Your task to perform on an android device: What's the weather today? Image 0: 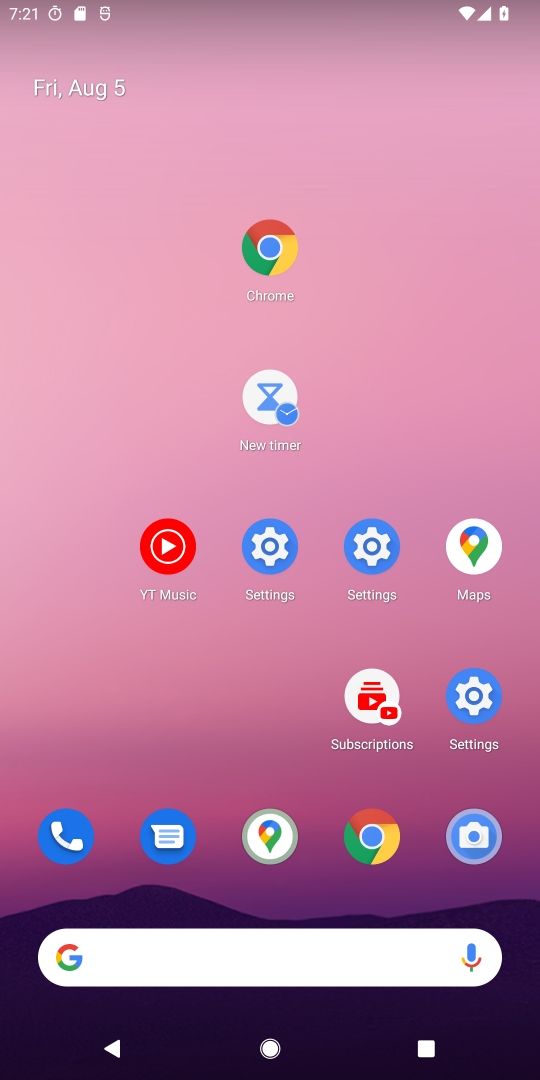
Step 0: drag from (290, 958) to (190, 337)
Your task to perform on an android device: What's the weather today? Image 1: 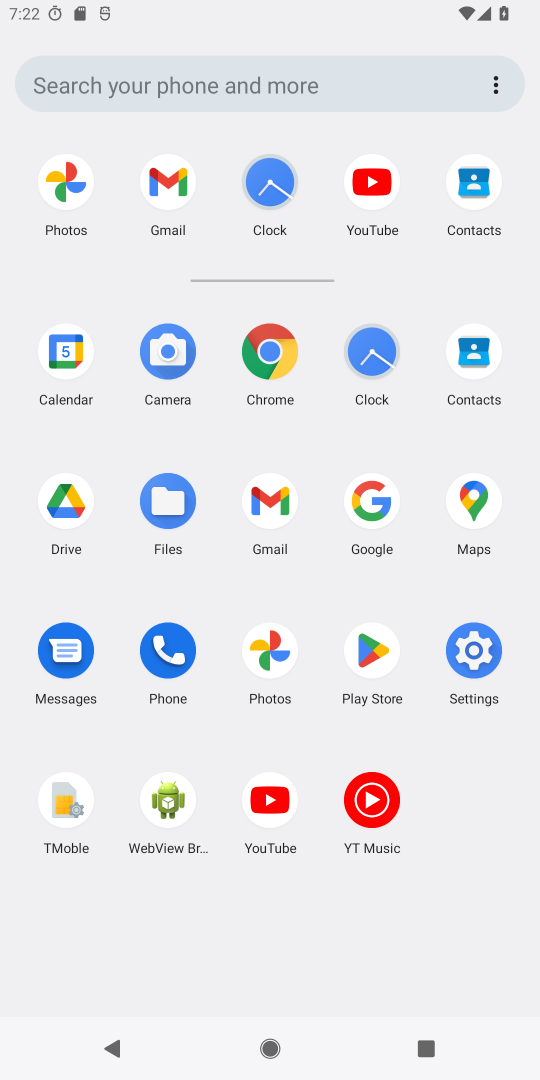
Step 1: click (290, 348)
Your task to perform on an android device: What's the weather today? Image 2: 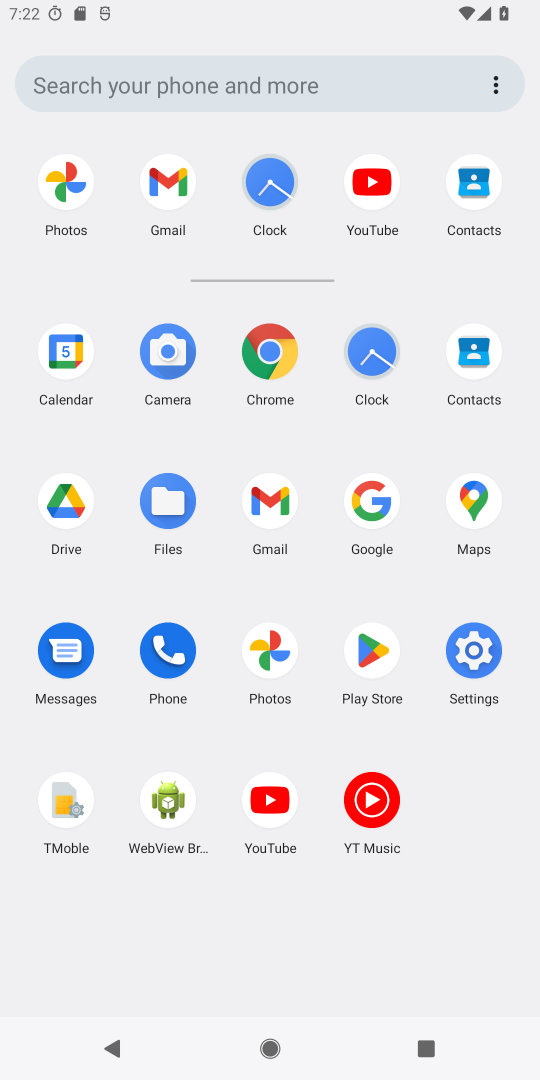
Step 2: click (261, 347)
Your task to perform on an android device: What's the weather today? Image 3: 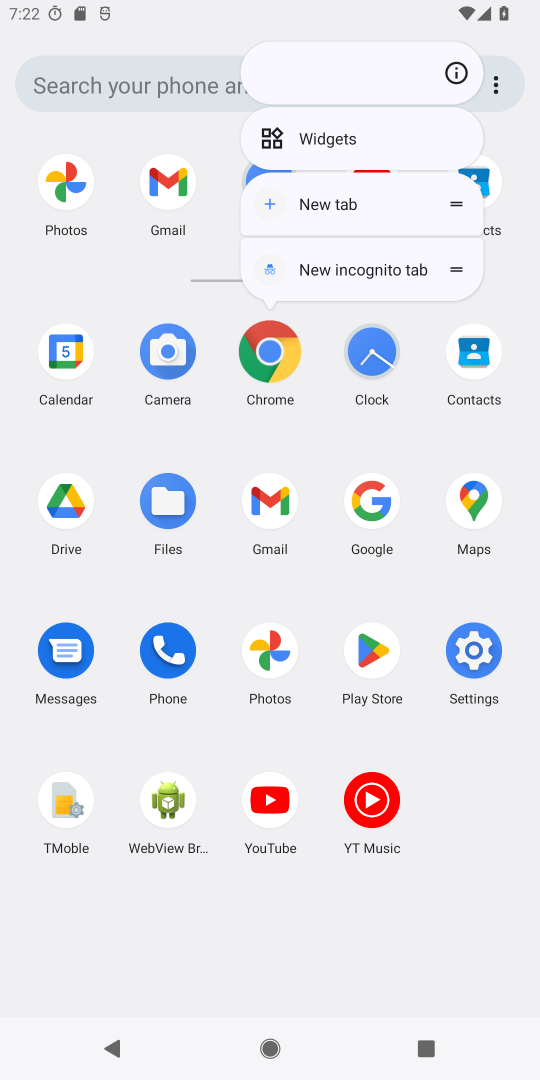
Step 3: click (264, 351)
Your task to perform on an android device: What's the weather today? Image 4: 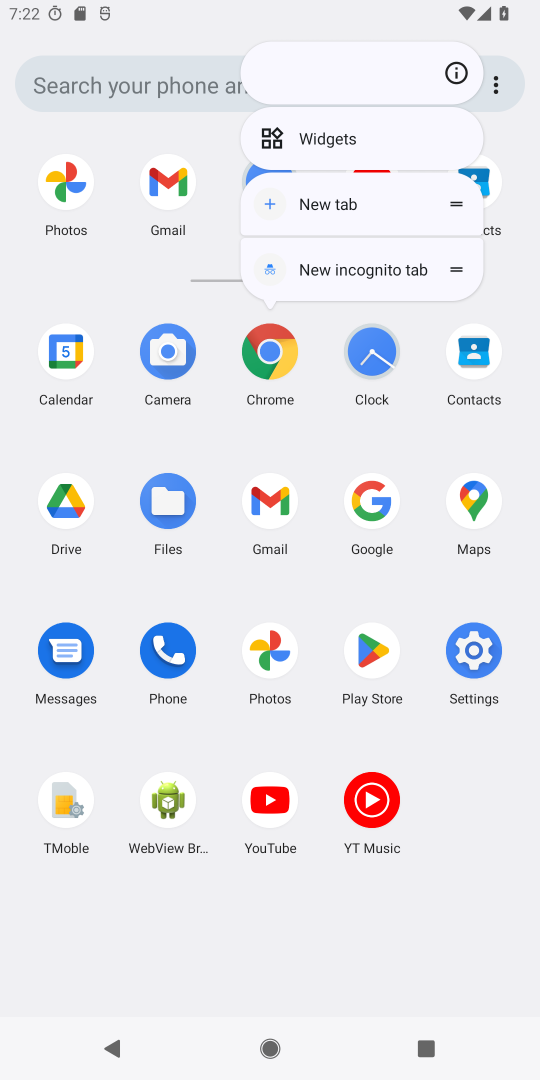
Step 4: click (264, 358)
Your task to perform on an android device: What's the weather today? Image 5: 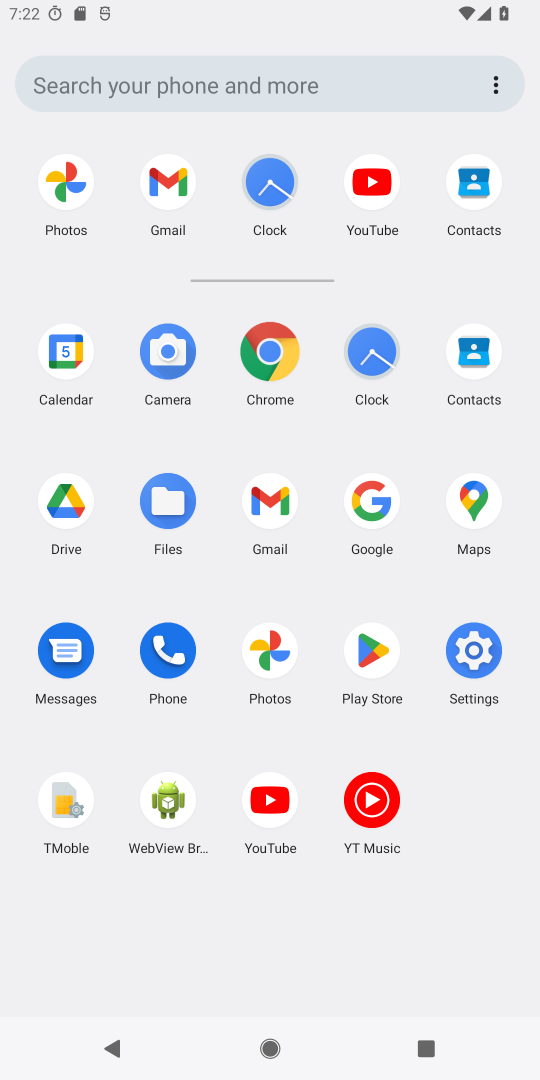
Step 5: click (265, 361)
Your task to perform on an android device: What's the weather today? Image 6: 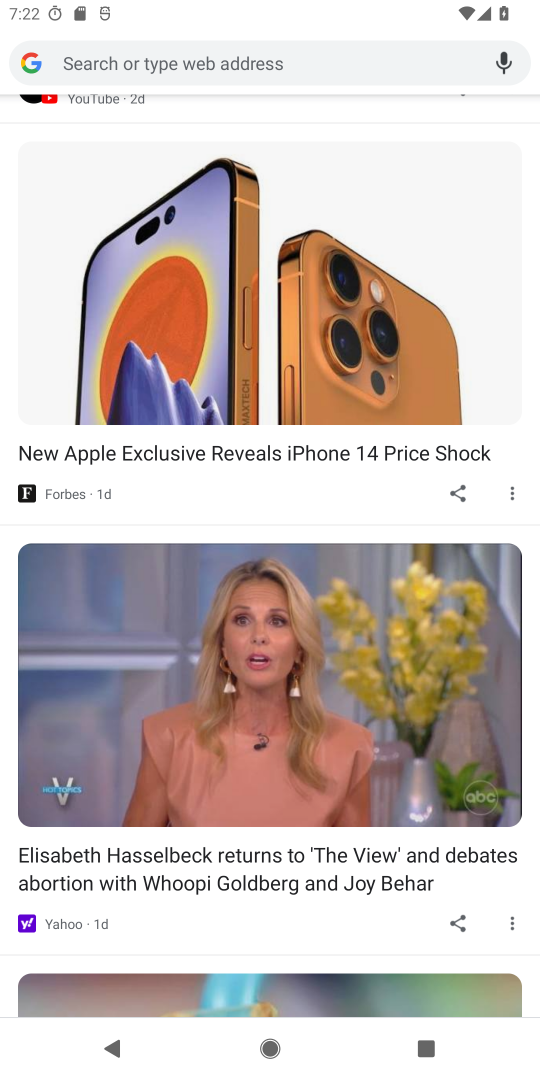
Step 6: click (107, 52)
Your task to perform on an android device: What's the weather today? Image 7: 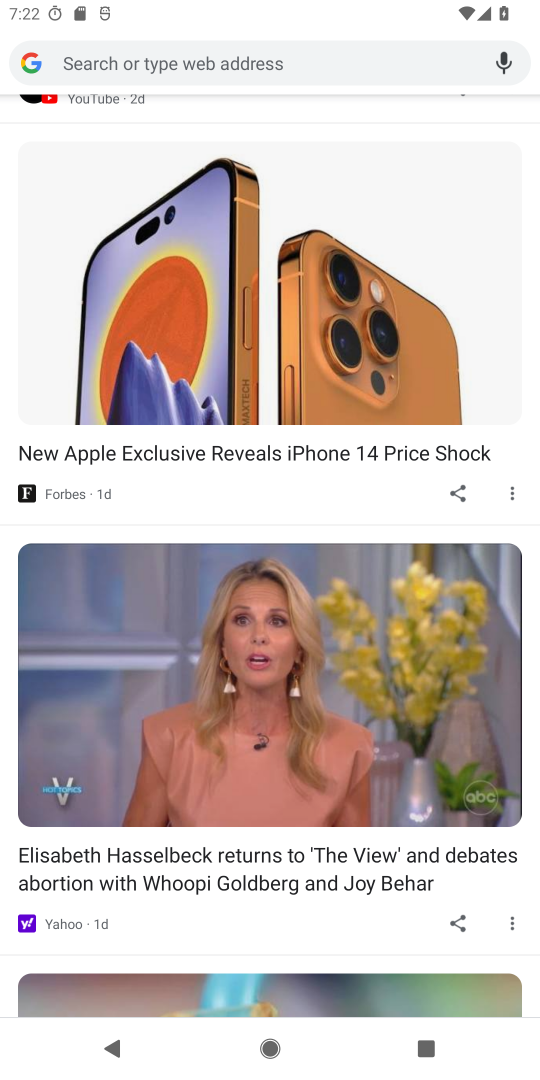
Step 7: click (107, 56)
Your task to perform on an android device: What's the weather today? Image 8: 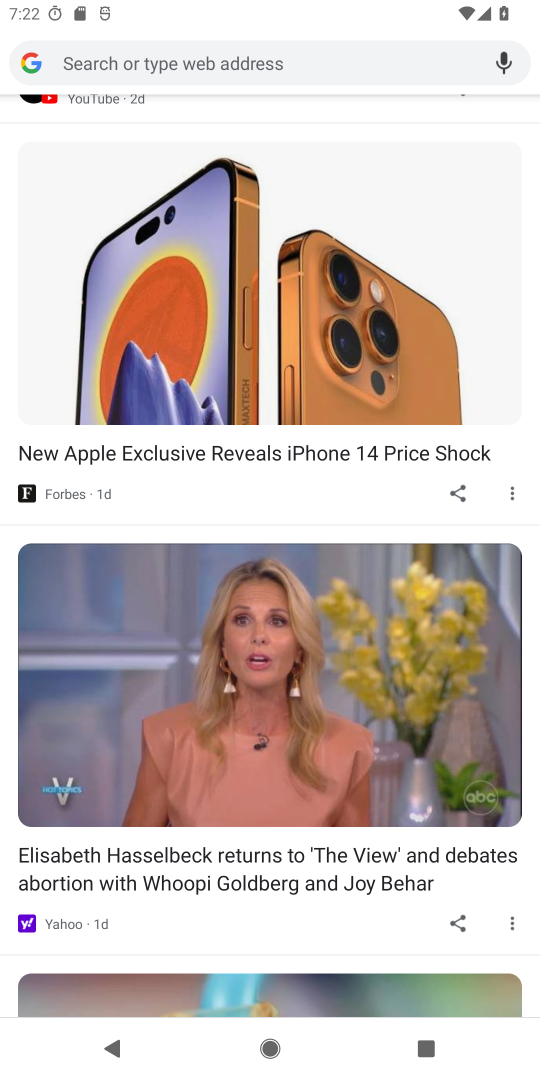
Step 8: type "weather today?"
Your task to perform on an android device: What's the weather today? Image 9: 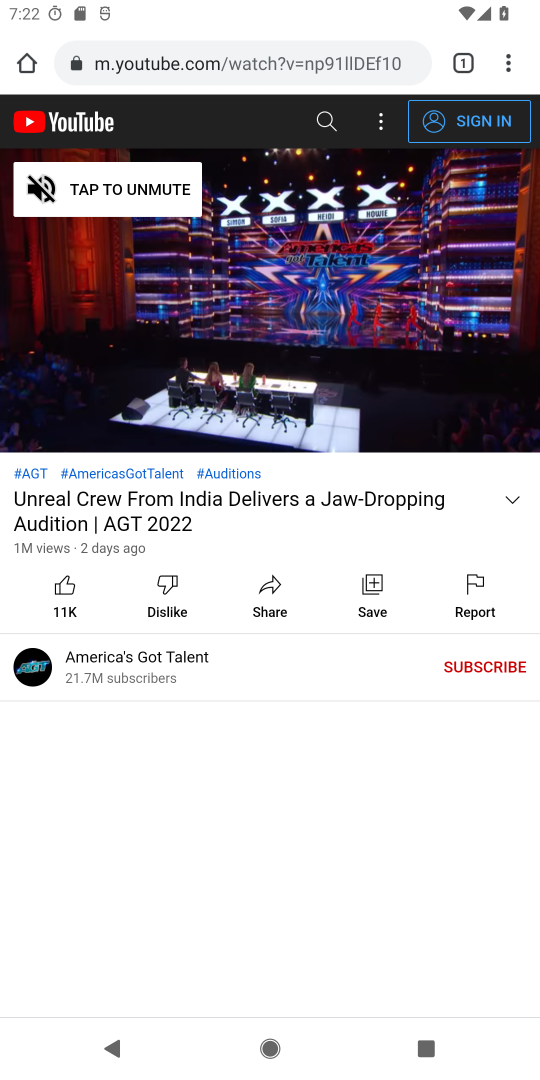
Step 9: press back button
Your task to perform on an android device: What's the weather today? Image 10: 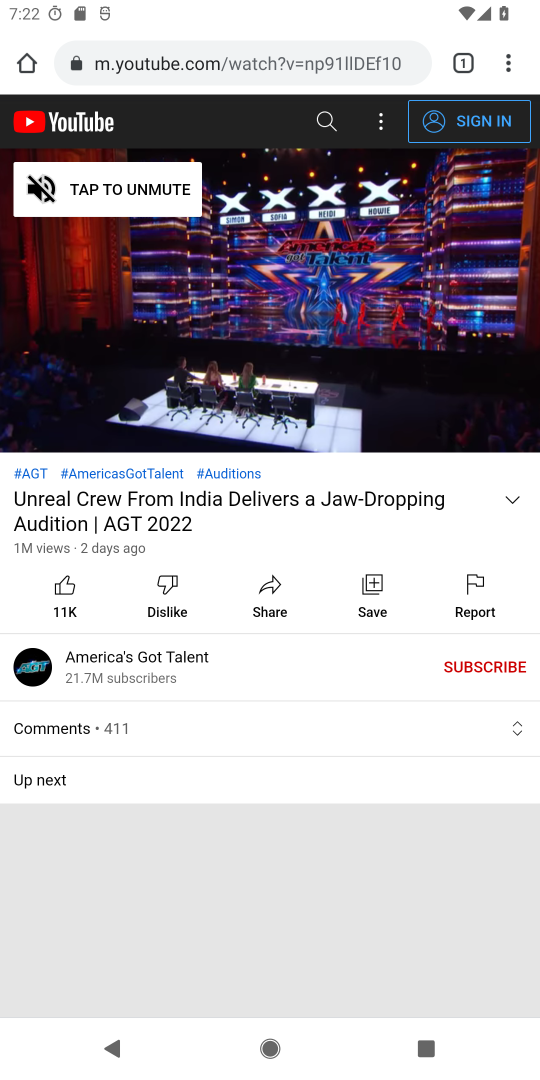
Step 10: press back button
Your task to perform on an android device: What's the weather today? Image 11: 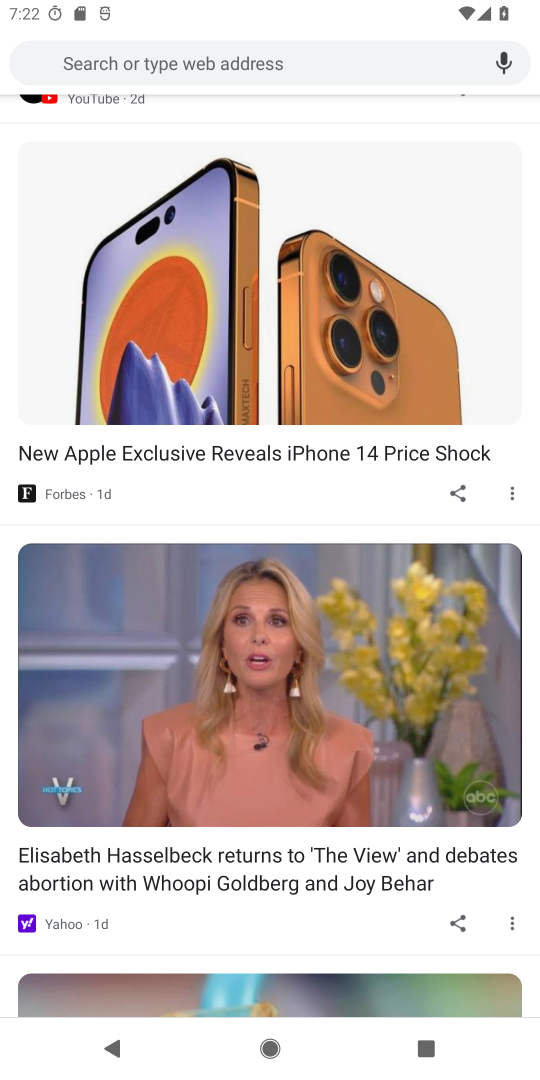
Step 11: press back button
Your task to perform on an android device: What's the weather today? Image 12: 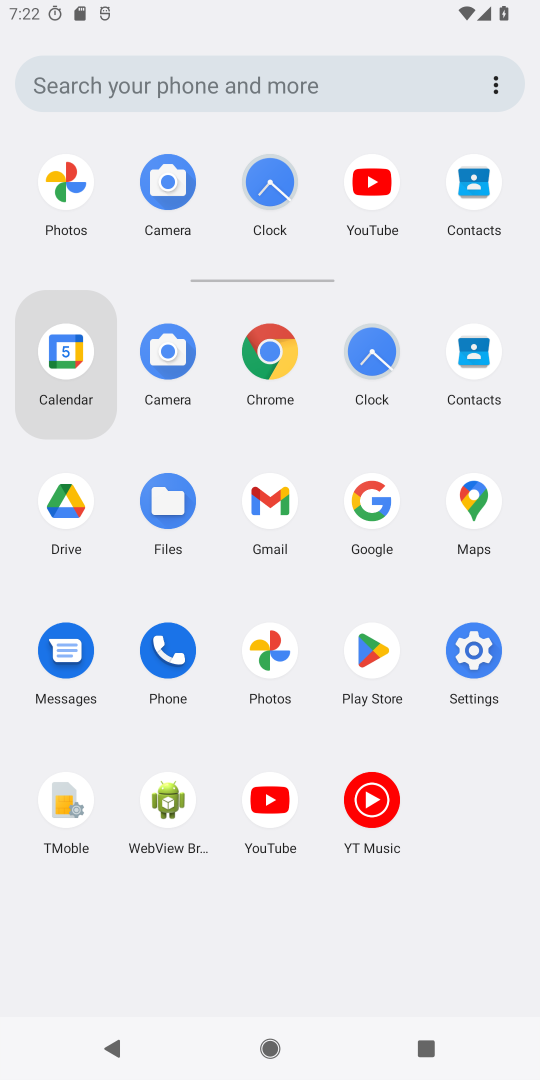
Step 12: press back button
Your task to perform on an android device: What's the weather today? Image 13: 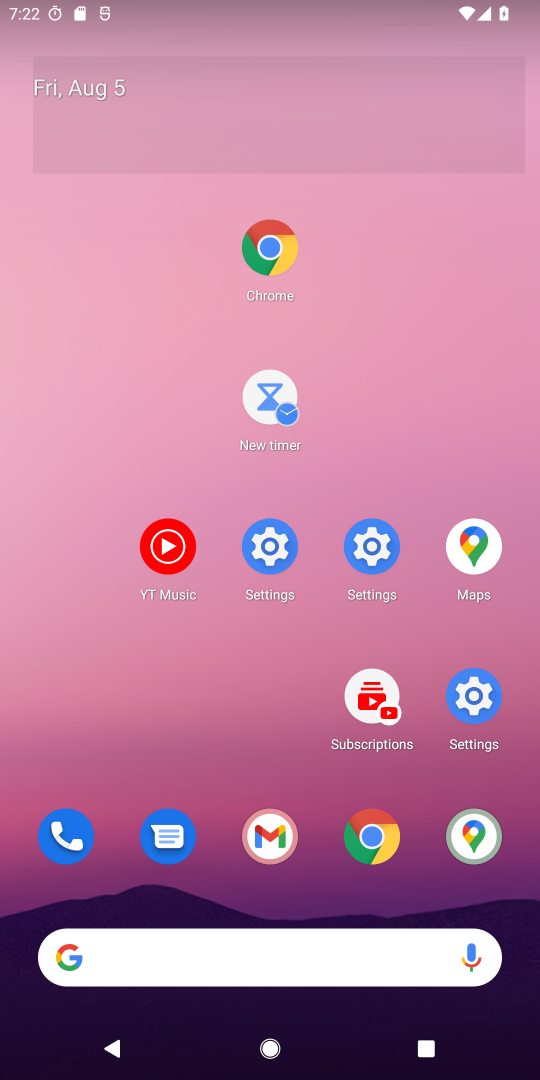
Step 13: drag from (309, 801) to (199, 408)
Your task to perform on an android device: What's the weather today? Image 14: 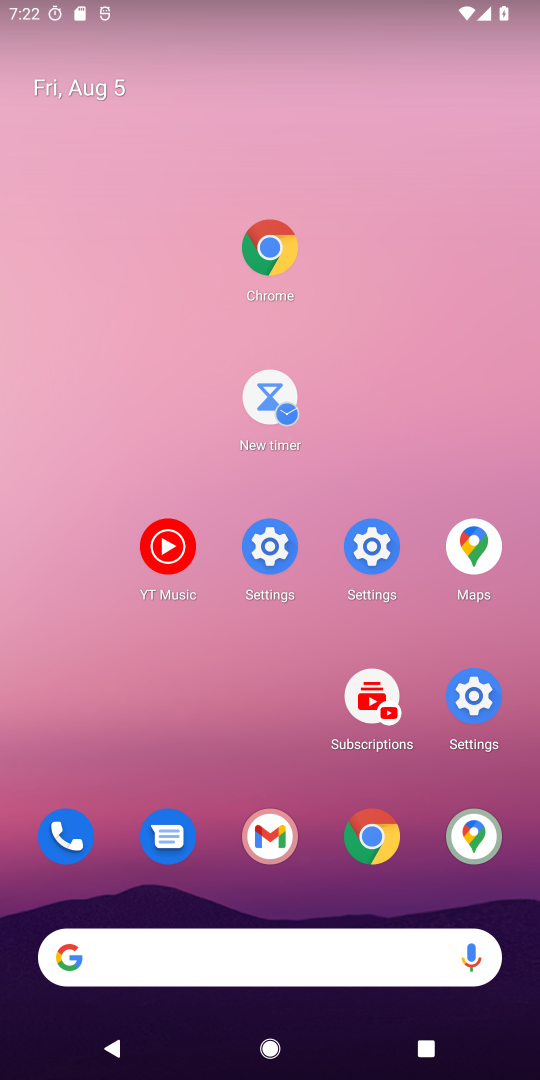
Step 14: click (252, 389)
Your task to perform on an android device: What's the weather today? Image 15: 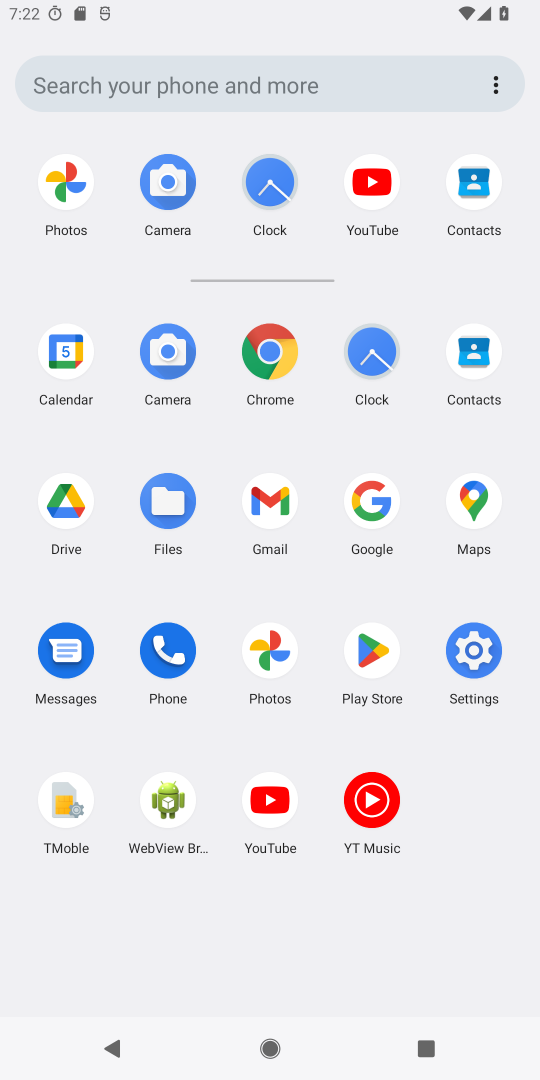
Step 15: click (252, 360)
Your task to perform on an android device: What's the weather today? Image 16: 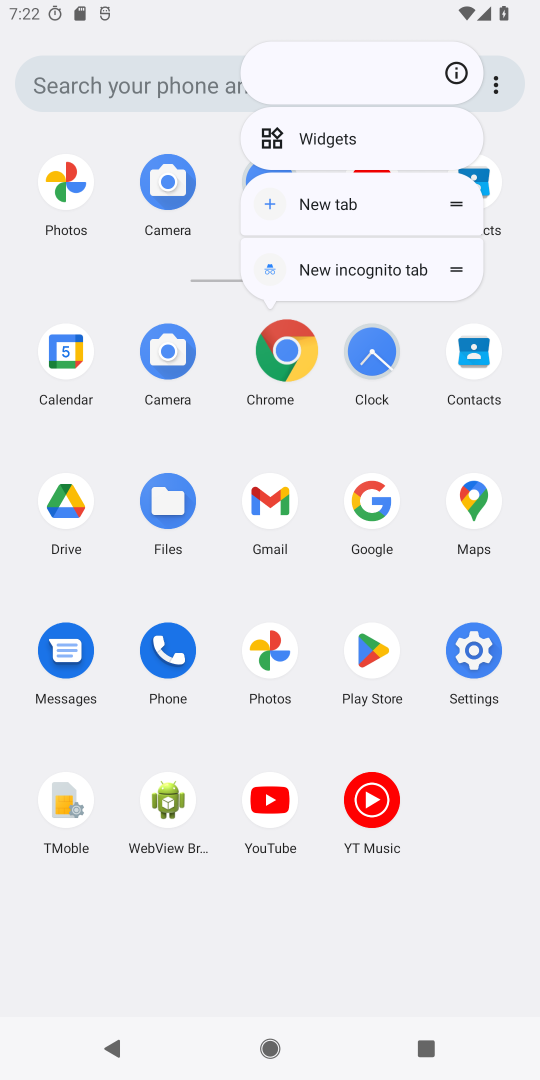
Step 16: click (269, 359)
Your task to perform on an android device: What's the weather today? Image 17: 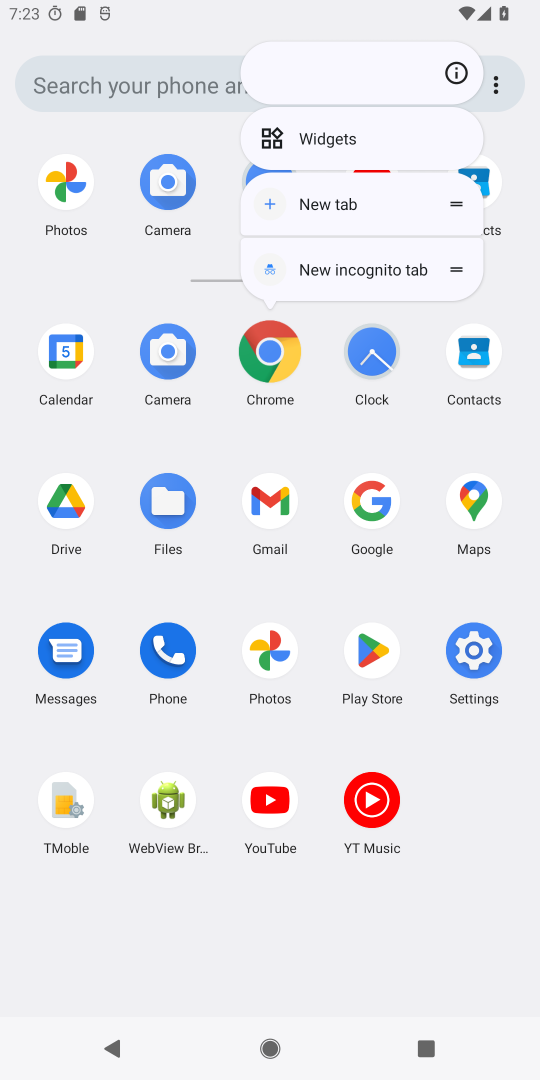
Step 17: click (270, 347)
Your task to perform on an android device: What's the weather today? Image 18: 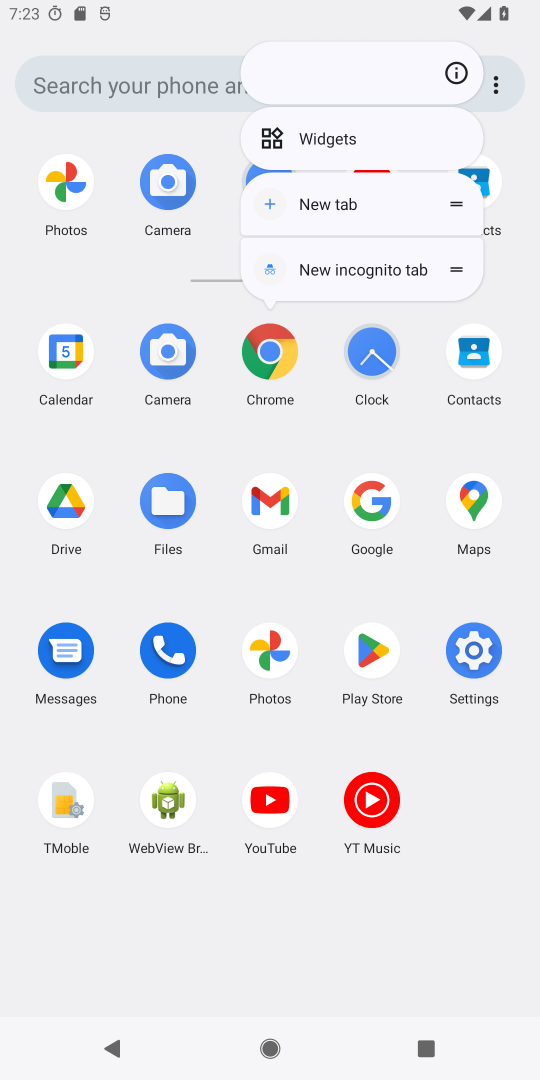
Step 18: click (359, 217)
Your task to perform on an android device: What's the weather today? Image 19: 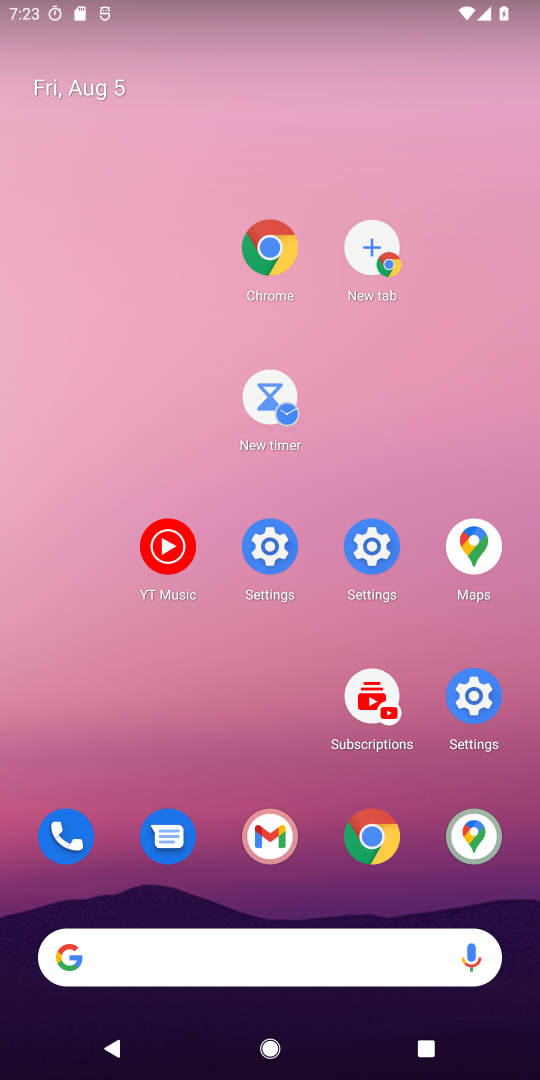
Step 19: drag from (280, 1015) to (205, 360)
Your task to perform on an android device: What's the weather today? Image 20: 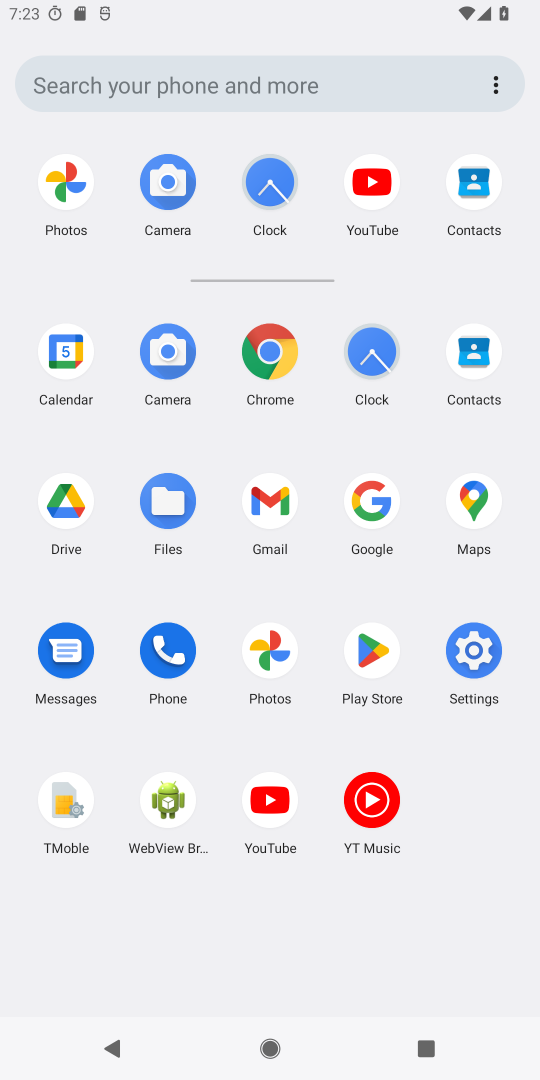
Step 20: click (158, 324)
Your task to perform on an android device: What's the weather today? Image 21: 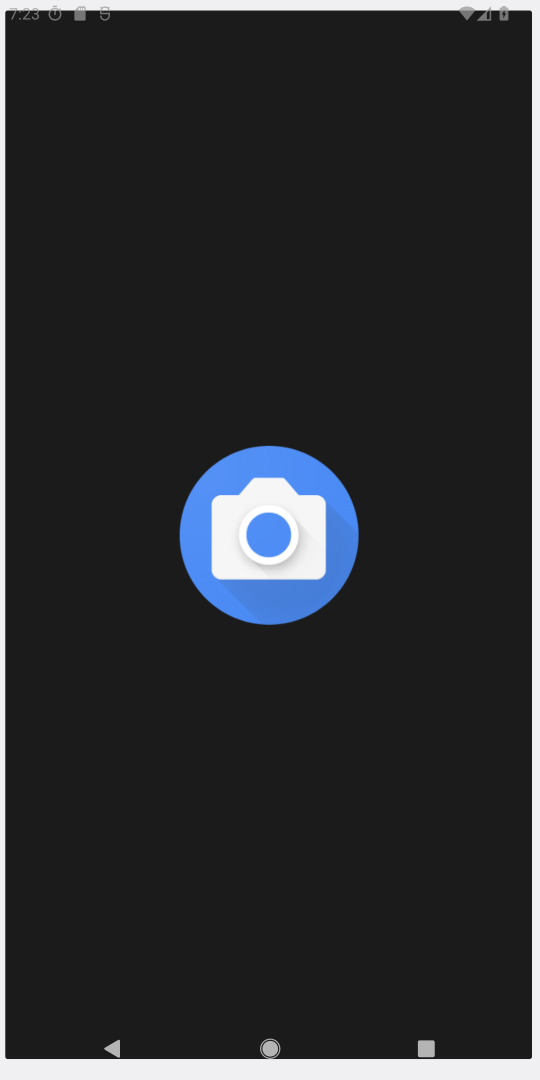
Step 21: drag from (230, 483) to (203, 4)
Your task to perform on an android device: What's the weather today? Image 22: 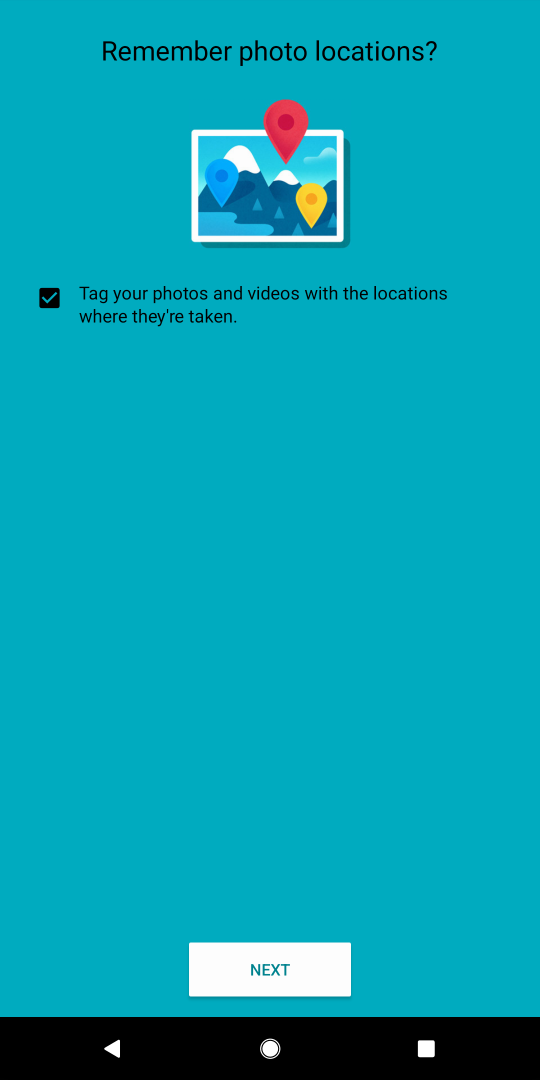
Step 22: drag from (324, 467) to (267, 69)
Your task to perform on an android device: What's the weather today? Image 23: 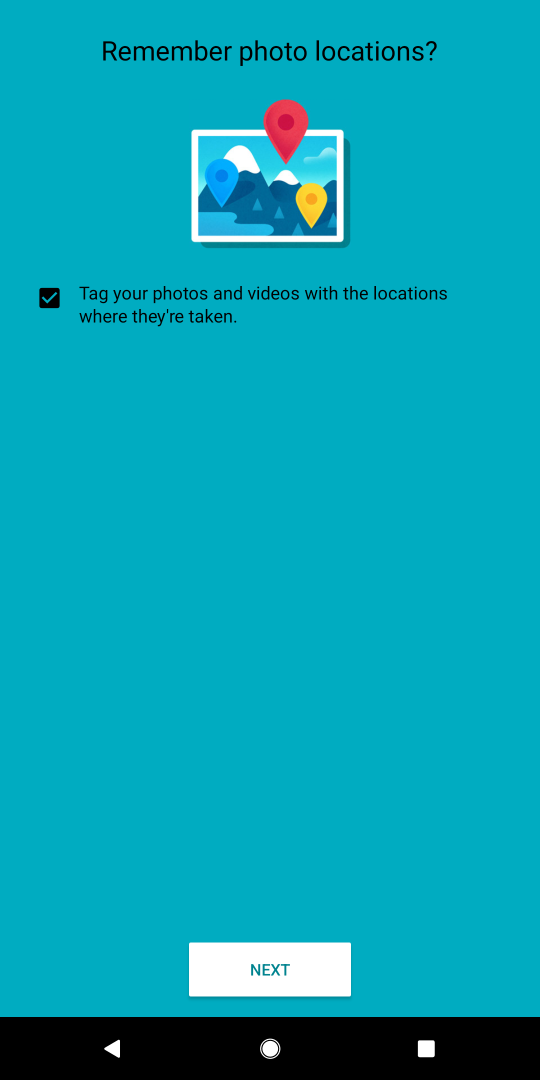
Step 23: drag from (336, 897) to (218, 185)
Your task to perform on an android device: What's the weather today? Image 24: 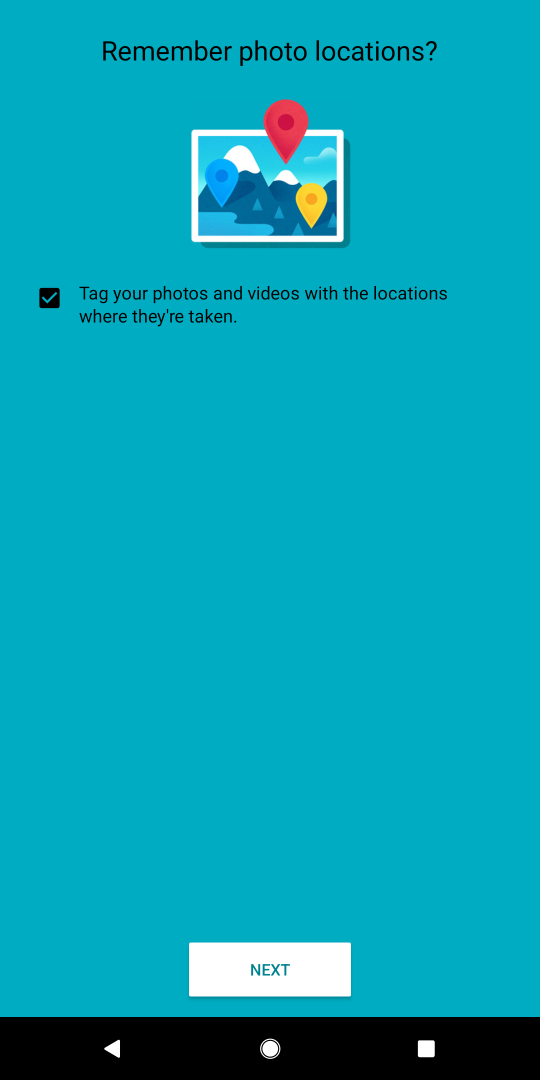
Step 24: press back button
Your task to perform on an android device: What's the weather today? Image 25: 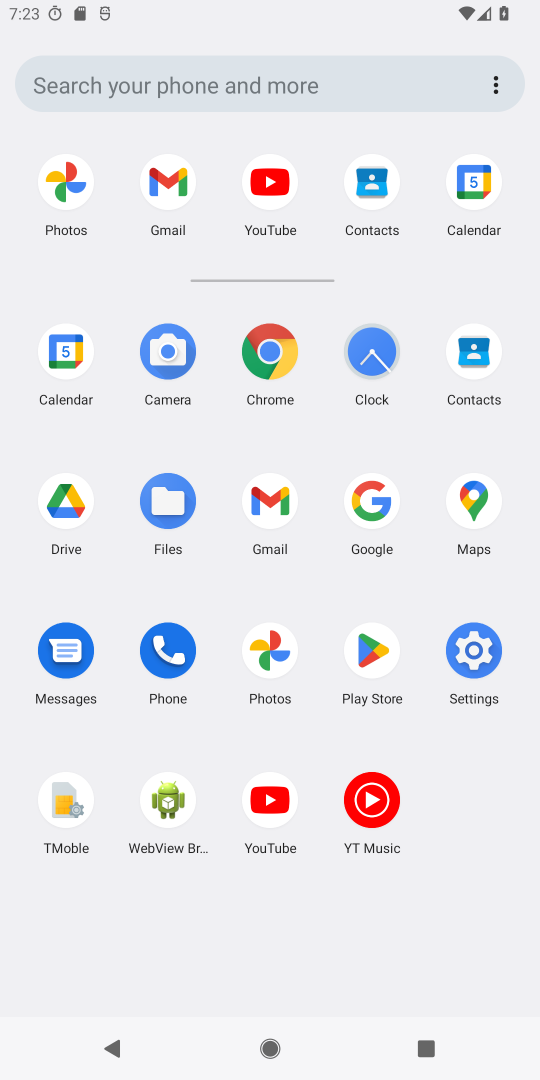
Step 25: drag from (277, 583) to (172, 213)
Your task to perform on an android device: What's the weather today? Image 26: 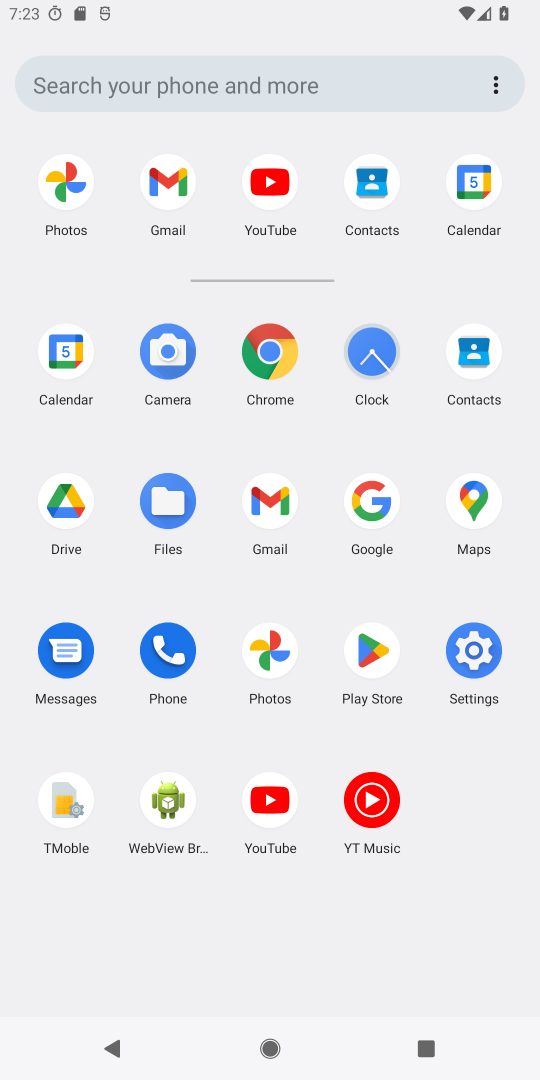
Step 26: drag from (252, 653) to (230, 499)
Your task to perform on an android device: What's the weather today? Image 27: 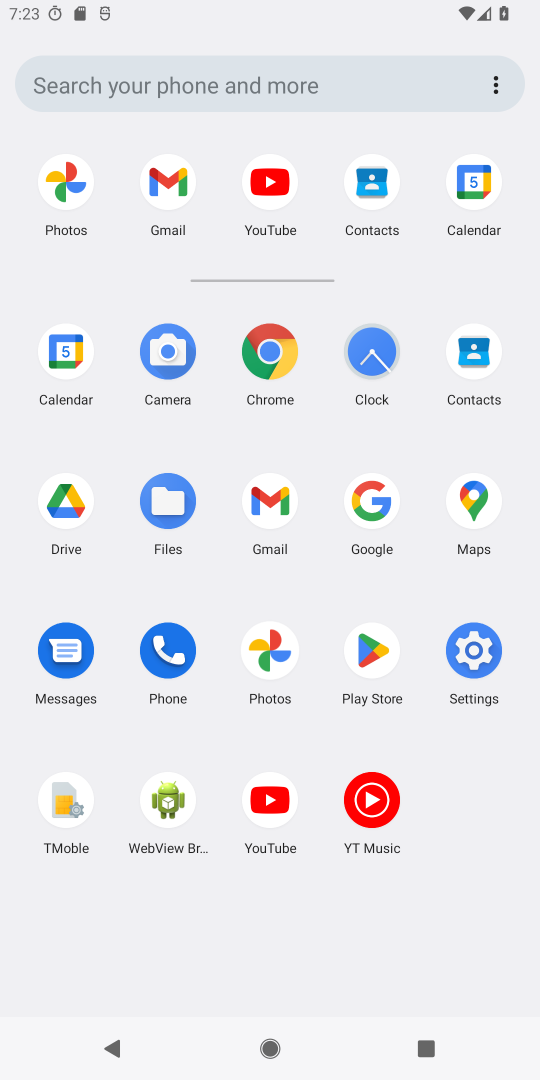
Step 27: drag from (282, 625) to (282, 246)
Your task to perform on an android device: What's the weather today? Image 28: 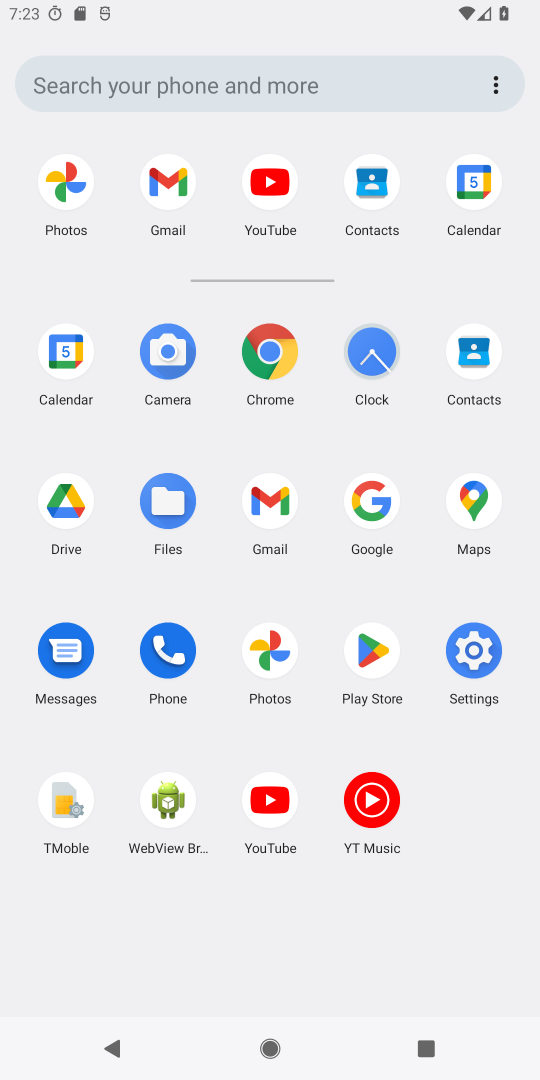
Step 28: click (265, 362)
Your task to perform on an android device: What's the weather today? Image 29: 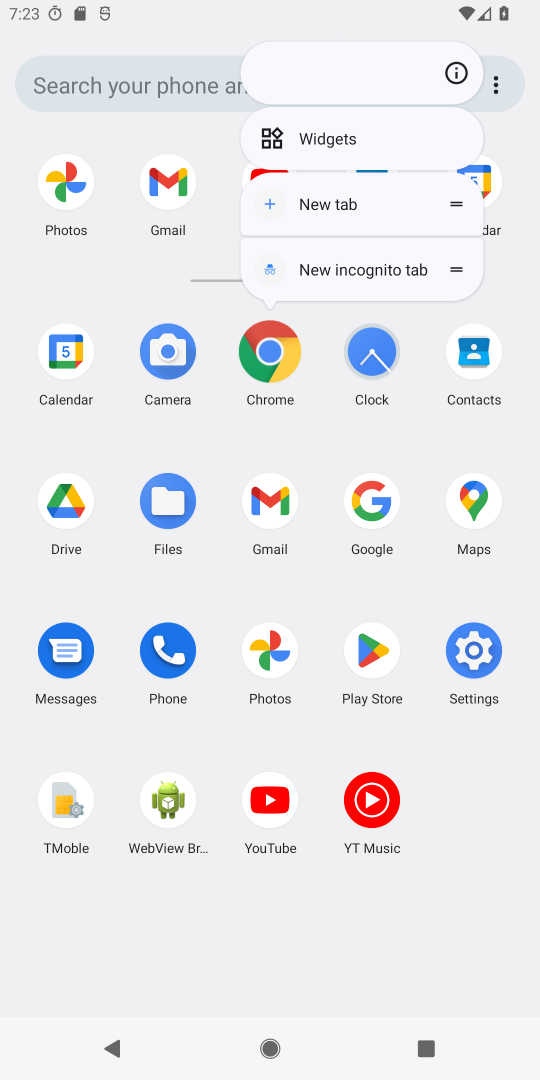
Step 29: click (265, 362)
Your task to perform on an android device: What's the weather today? Image 30: 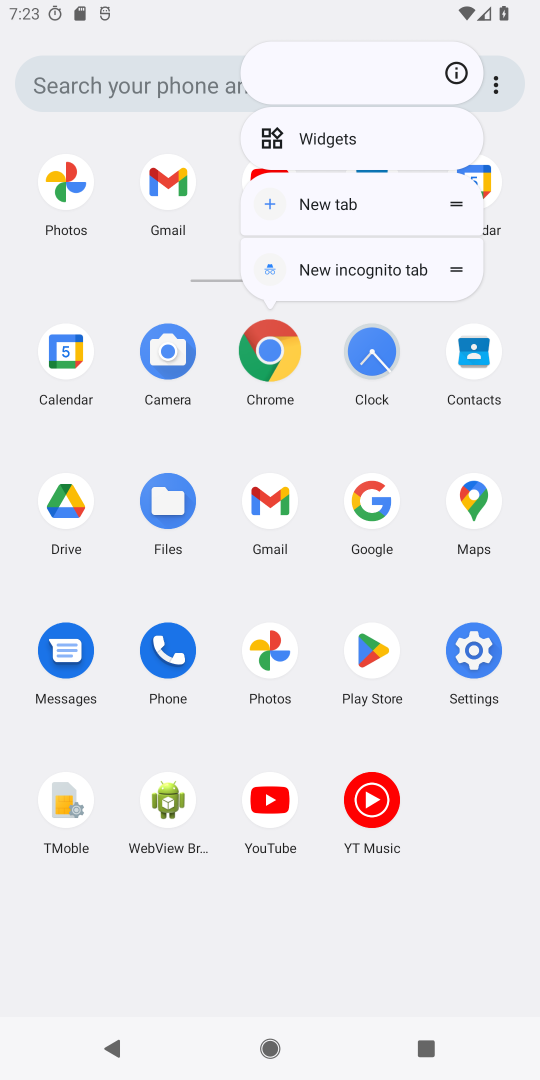
Step 30: click (265, 360)
Your task to perform on an android device: What's the weather today? Image 31: 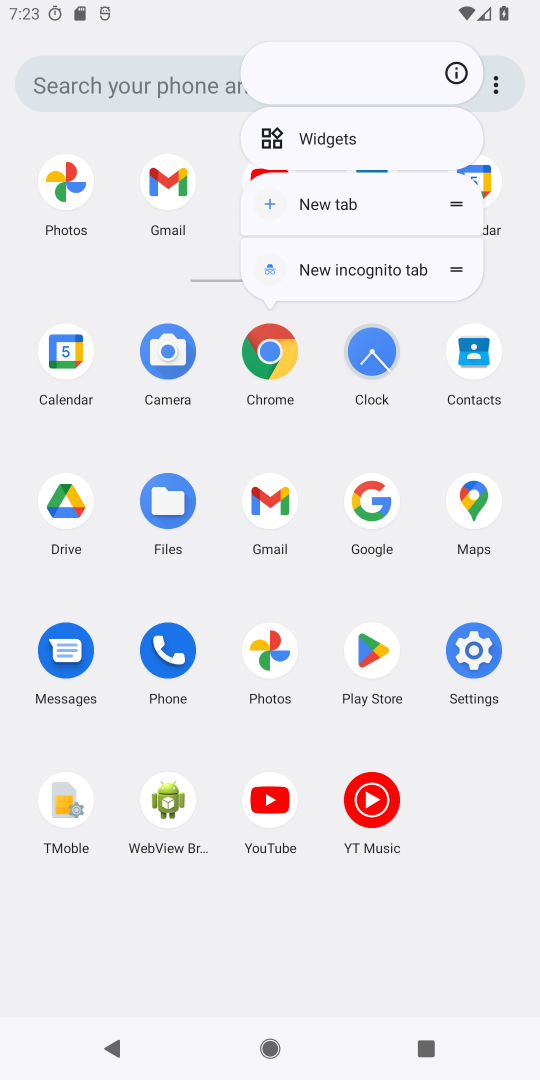
Step 31: click (265, 360)
Your task to perform on an android device: What's the weather today? Image 32: 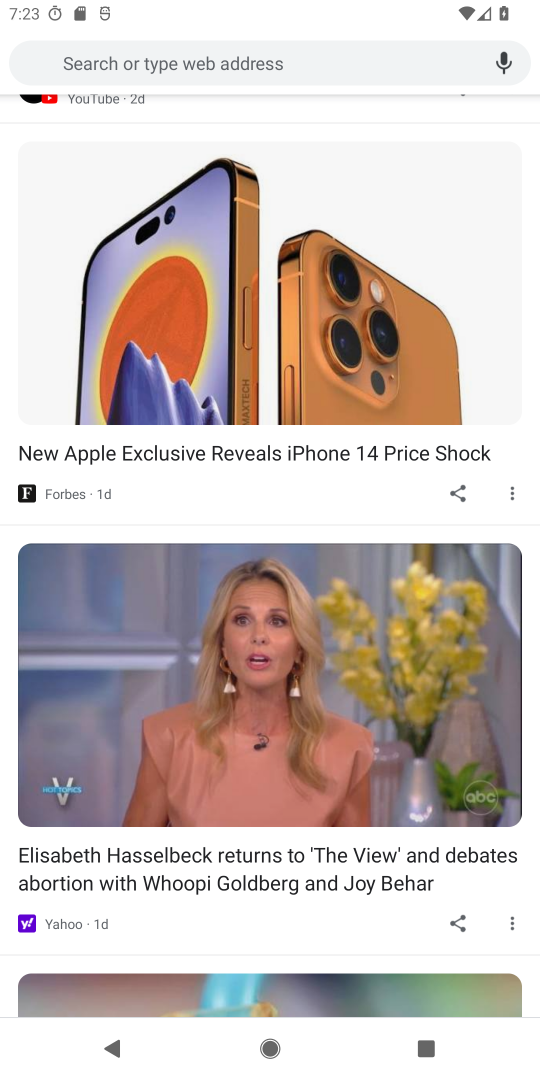
Step 32: click (115, 71)
Your task to perform on an android device: What's the weather today? Image 33: 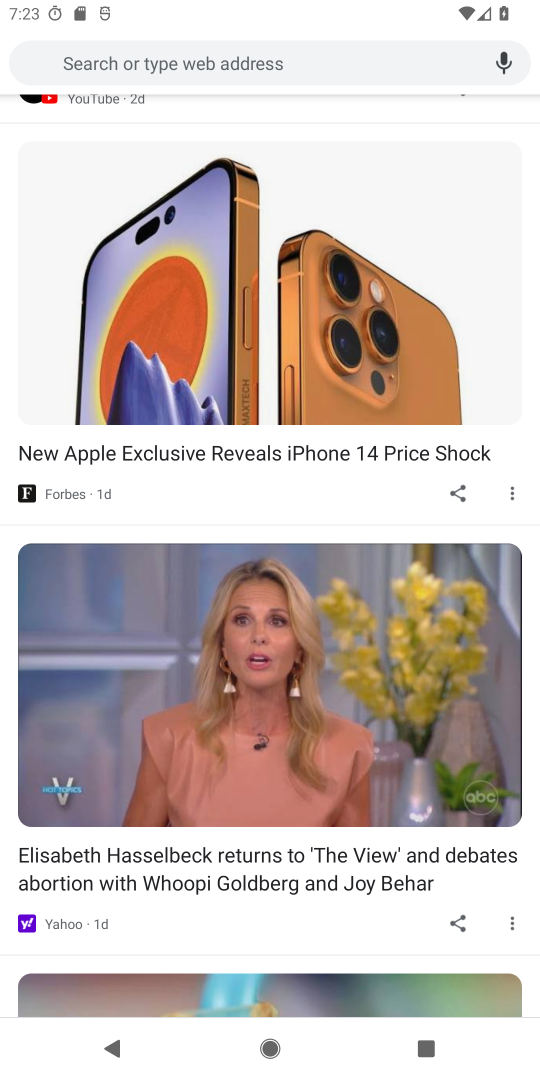
Step 33: click (115, 71)
Your task to perform on an android device: What's the weather today? Image 34: 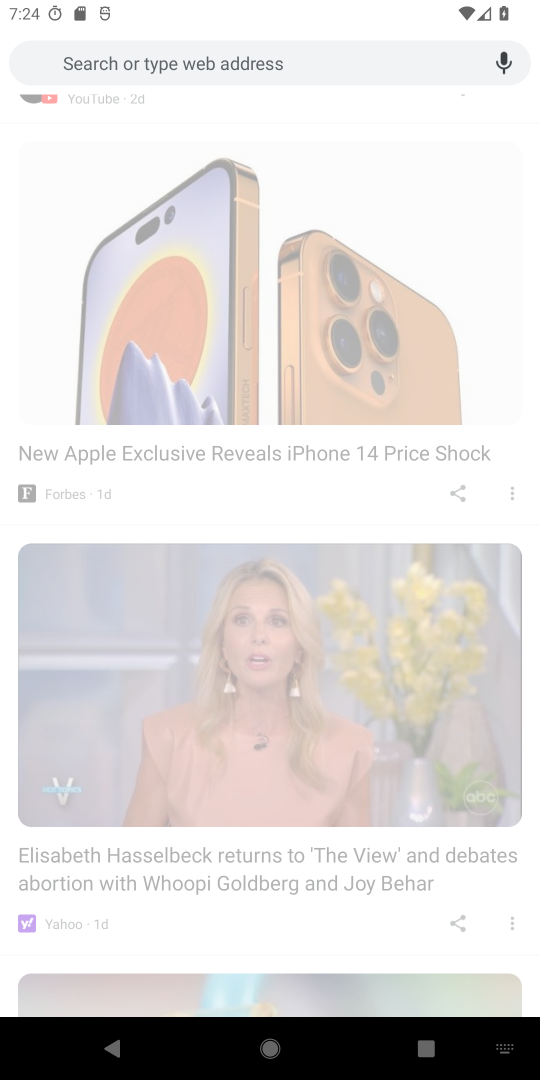
Step 34: click (115, 71)
Your task to perform on an android device: What's the weather today? Image 35: 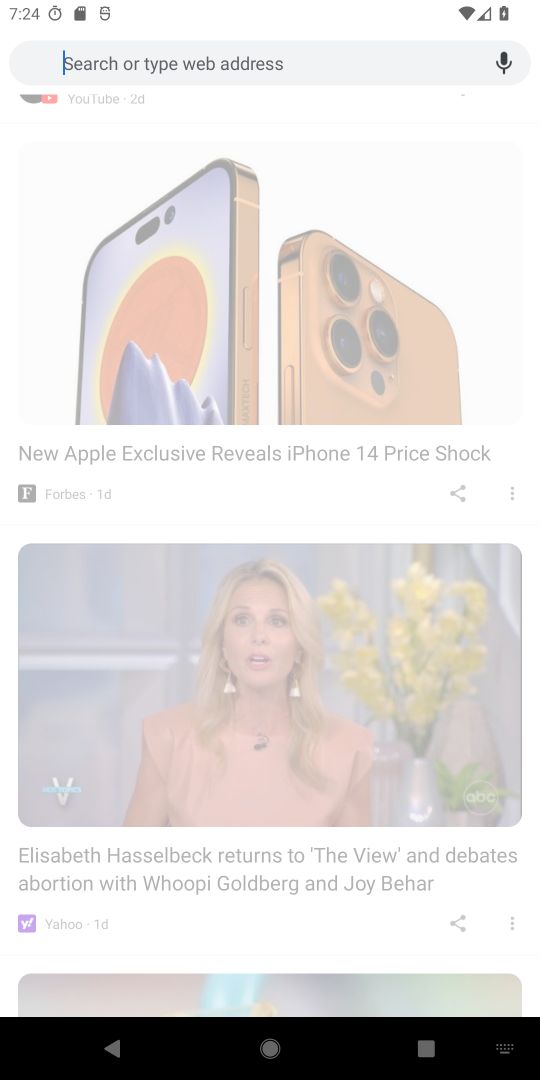
Step 35: type "weather"
Your task to perform on an android device: What's the weather today? Image 36: 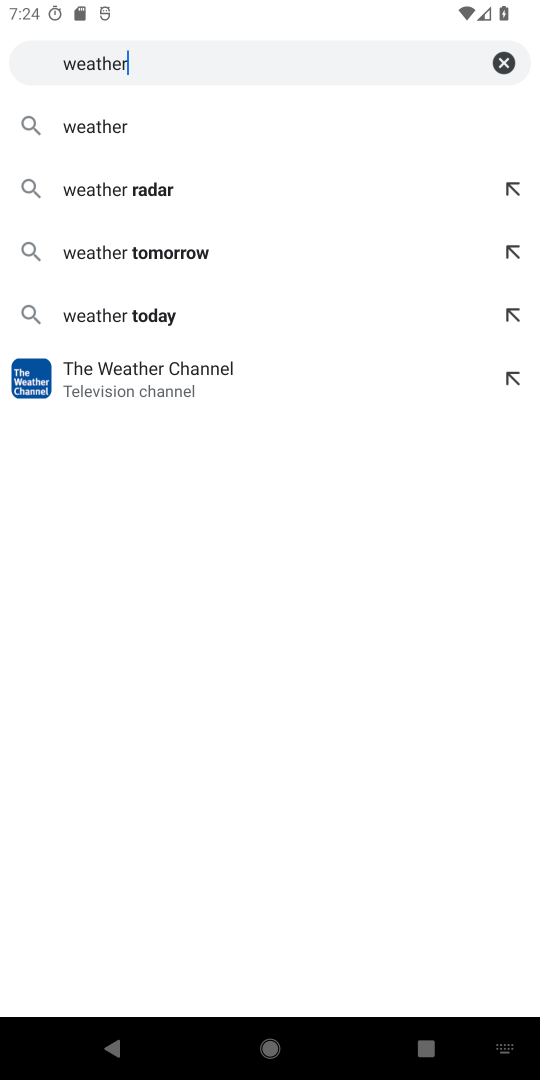
Step 36: type "  today?"
Your task to perform on an android device: What's the weather today? Image 37: 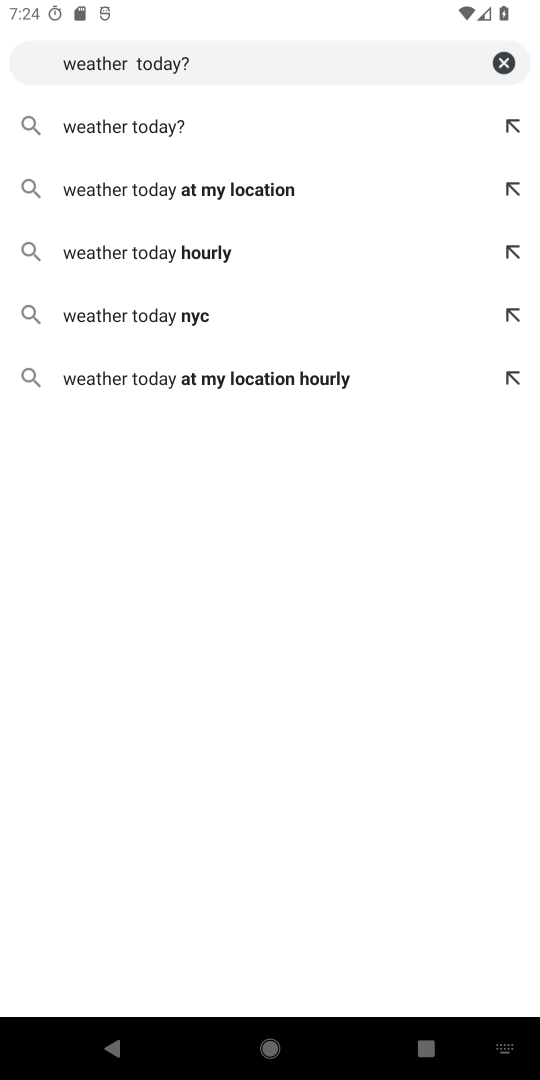
Step 37: click (170, 123)
Your task to perform on an android device: What's the weather today? Image 38: 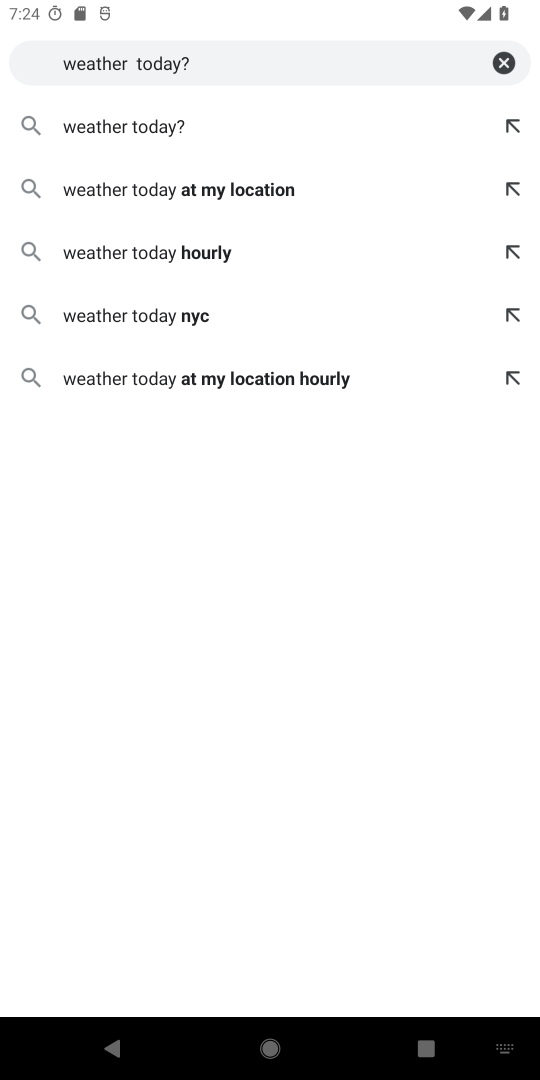
Step 38: click (159, 134)
Your task to perform on an android device: What's the weather today? Image 39: 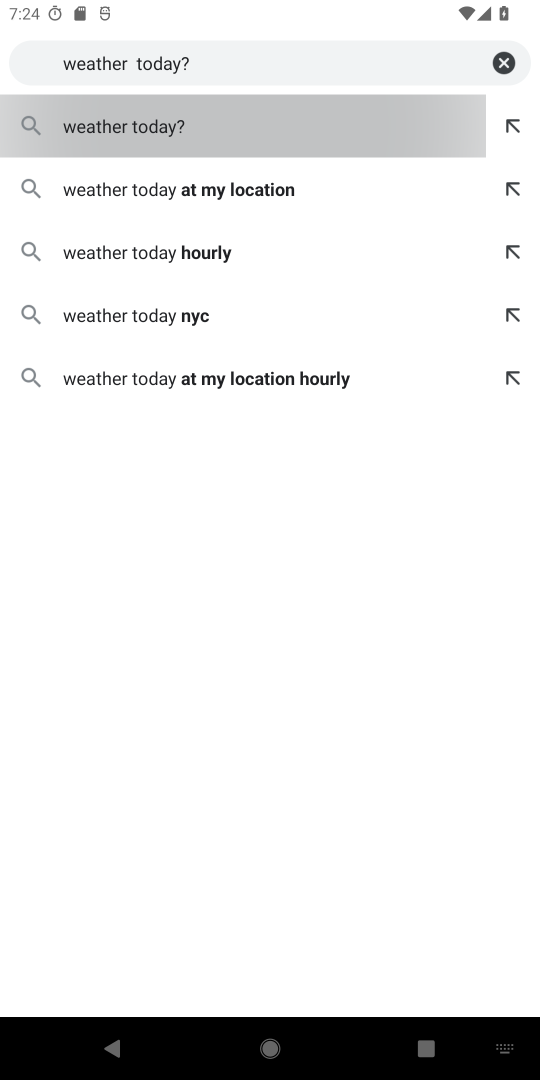
Step 39: click (159, 130)
Your task to perform on an android device: What's the weather today? Image 40: 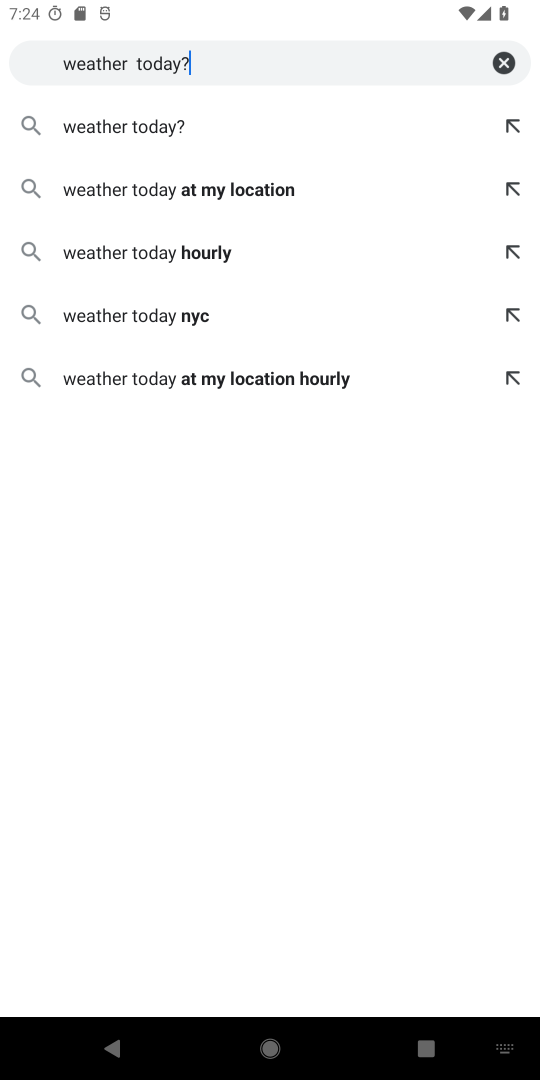
Step 40: click (157, 129)
Your task to perform on an android device: What's the weather today? Image 41: 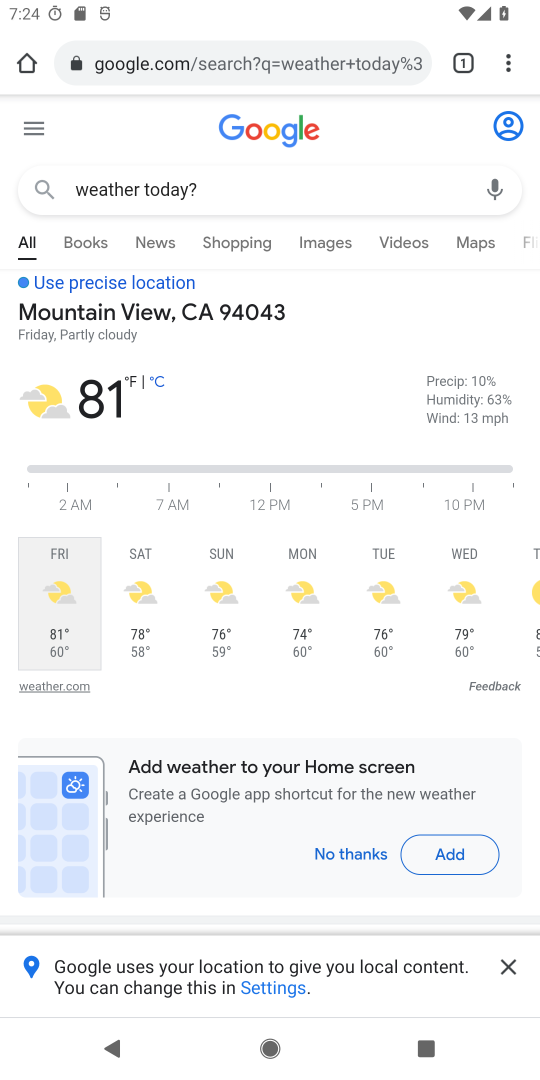
Step 41: task complete